Your task to perform on an android device: Do I have any events tomorrow? Image 0: 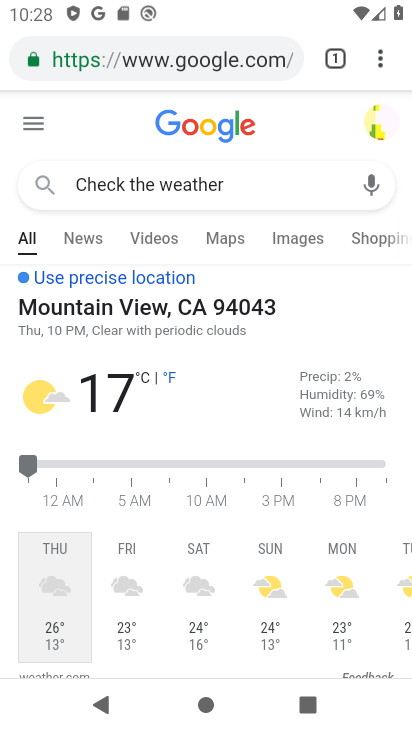
Step 0: press back button
Your task to perform on an android device: Do I have any events tomorrow? Image 1: 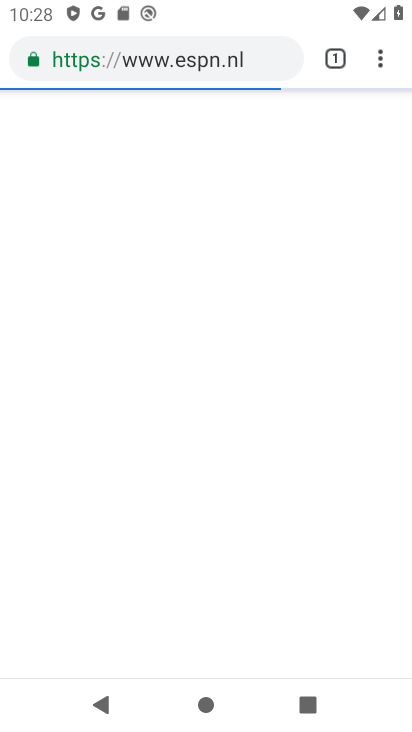
Step 1: press home button
Your task to perform on an android device: Do I have any events tomorrow? Image 2: 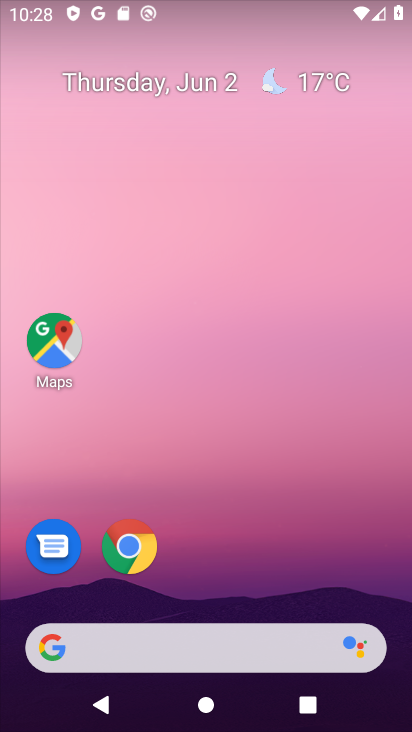
Step 2: drag from (294, 533) to (293, 45)
Your task to perform on an android device: Do I have any events tomorrow? Image 3: 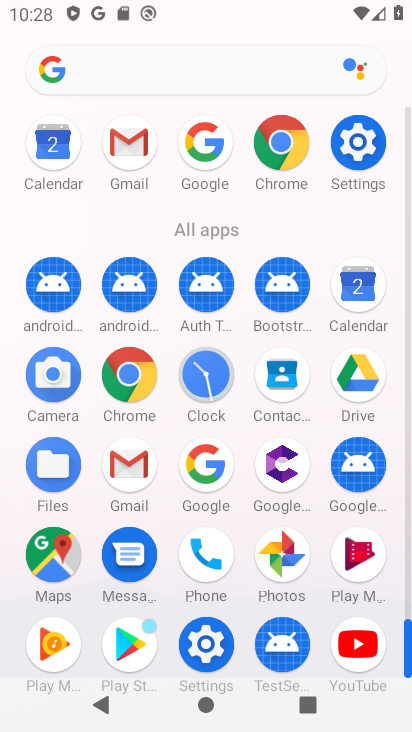
Step 3: click (357, 276)
Your task to perform on an android device: Do I have any events tomorrow? Image 4: 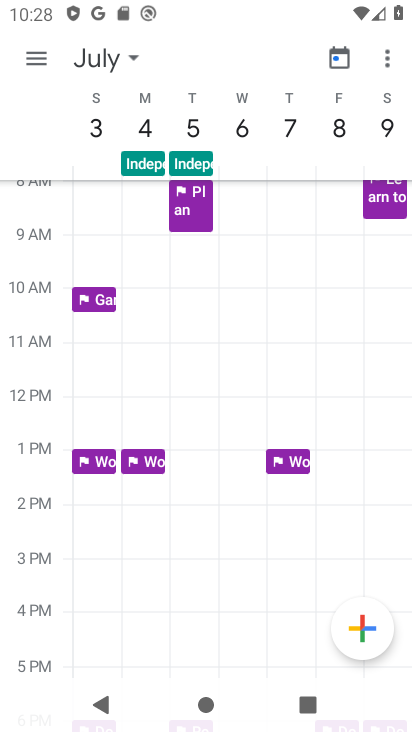
Step 4: click (335, 52)
Your task to perform on an android device: Do I have any events tomorrow? Image 5: 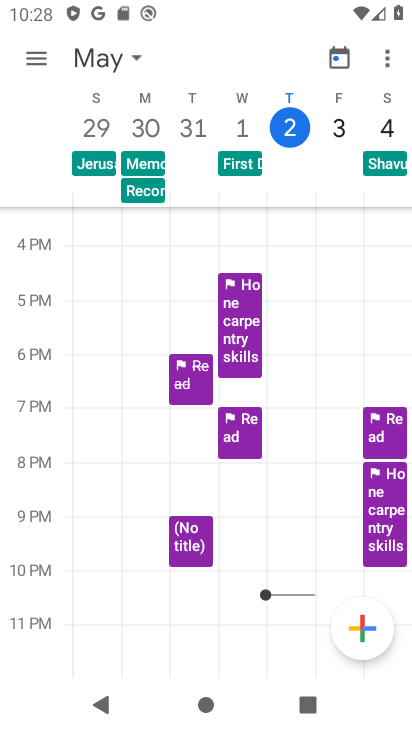
Step 5: click (338, 116)
Your task to perform on an android device: Do I have any events tomorrow? Image 6: 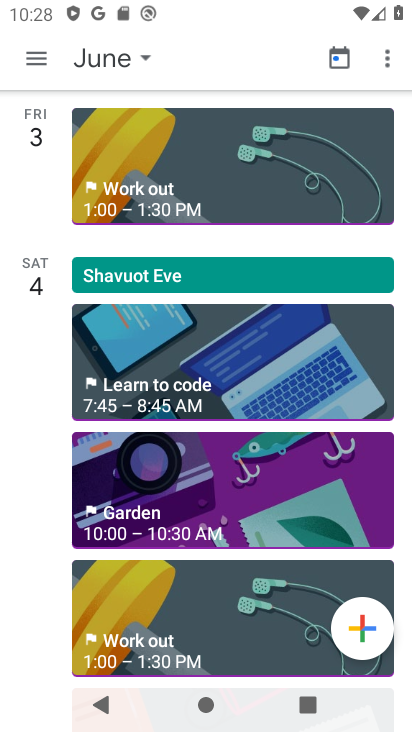
Step 6: task complete